Your task to perform on an android device: Open ESPN.com Image 0: 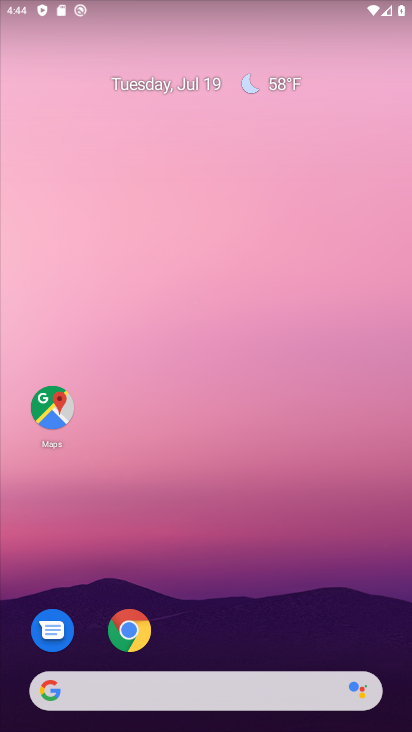
Step 0: drag from (242, 706) to (197, 168)
Your task to perform on an android device: Open ESPN.com Image 1: 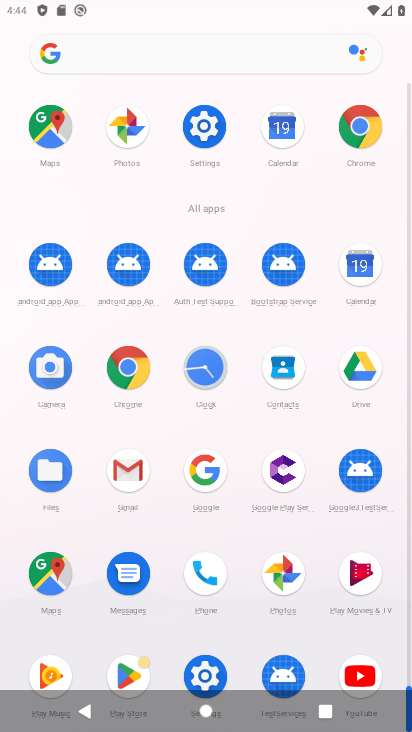
Step 1: click (355, 127)
Your task to perform on an android device: Open ESPN.com Image 2: 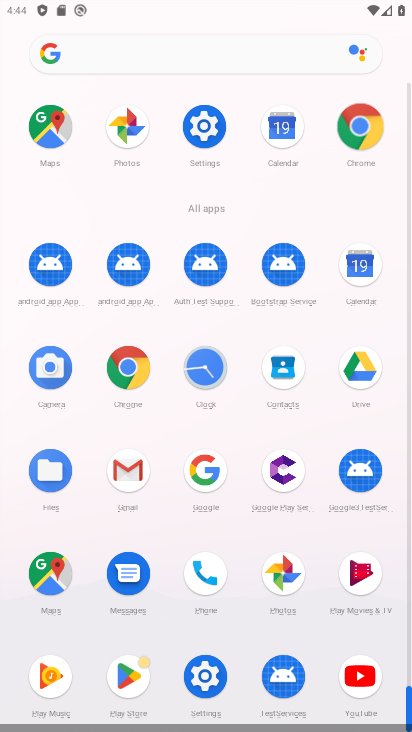
Step 2: click (355, 130)
Your task to perform on an android device: Open ESPN.com Image 3: 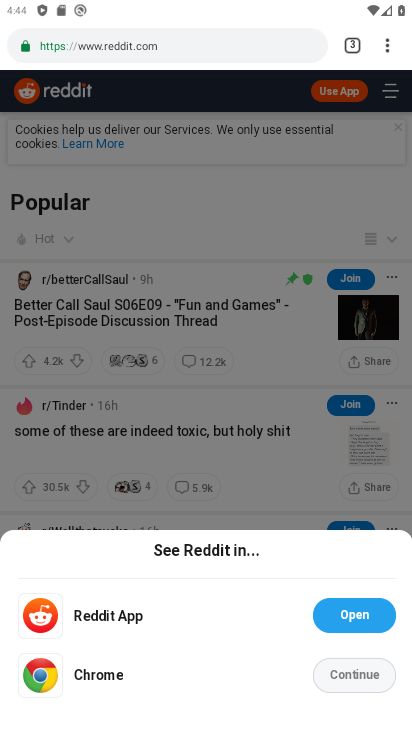
Step 3: press back button
Your task to perform on an android device: Open ESPN.com Image 4: 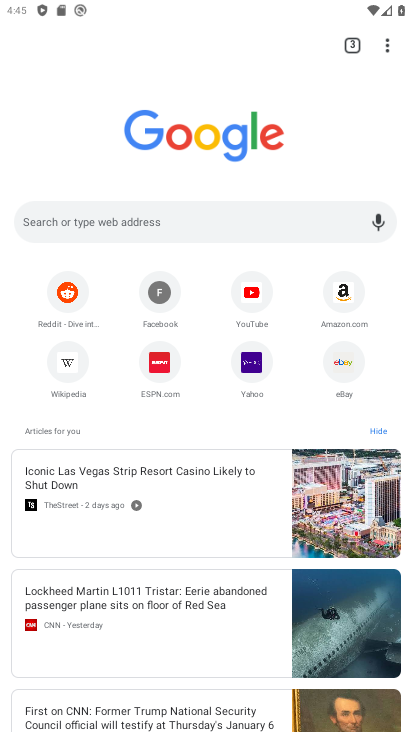
Step 4: click (152, 368)
Your task to perform on an android device: Open ESPN.com Image 5: 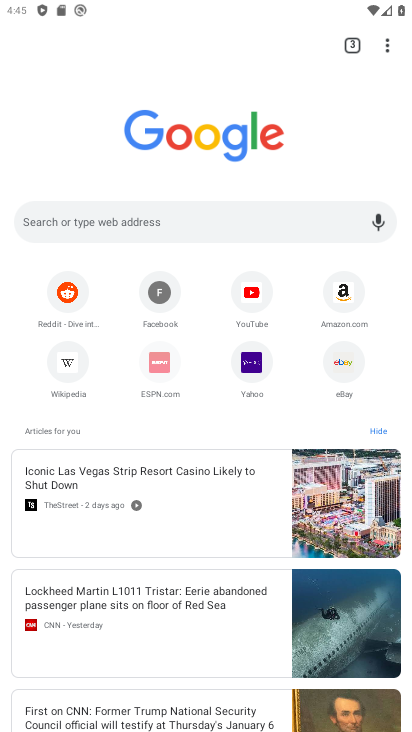
Step 5: click (150, 364)
Your task to perform on an android device: Open ESPN.com Image 6: 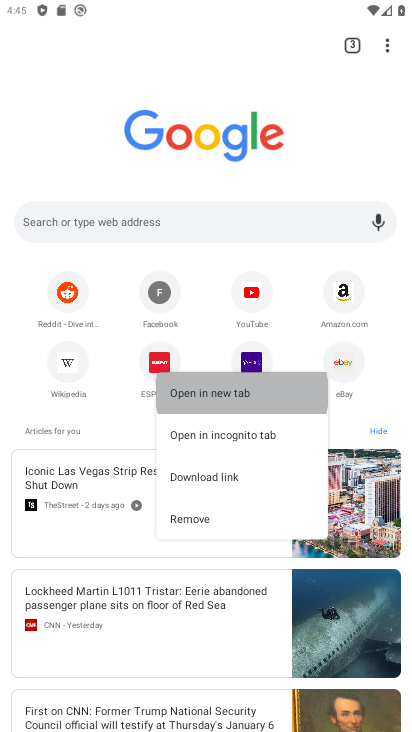
Step 6: click (150, 363)
Your task to perform on an android device: Open ESPN.com Image 7: 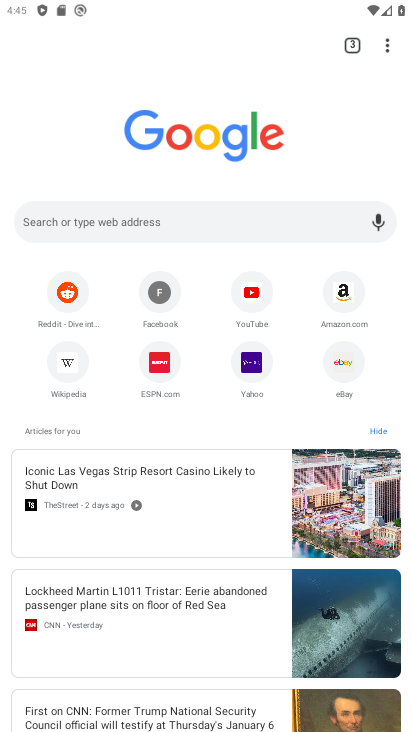
Step 7: click (151, 362)
Your task to perform on an android device: Open ESPN.com Image 8: 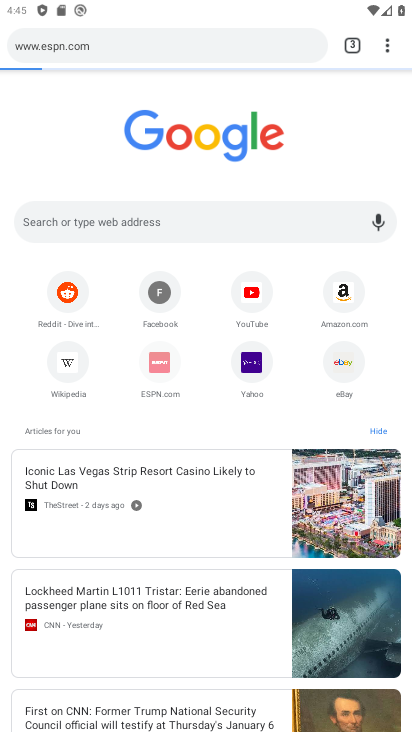
Step 8: click (150, 367)
Your task to perform on an android device: Open ESPN.com Image 9: 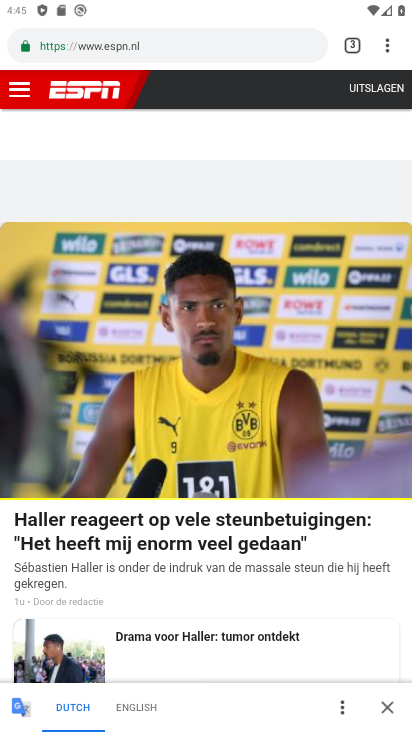
Step 9: task complete